Your task to perform on an android device: Open Yahoo.com Image 0: 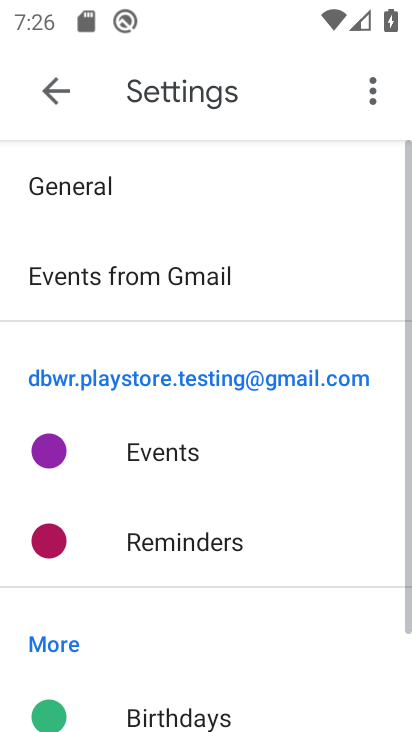
Step 0: click (395, 617)
Your task to perform on an android device: Open Yahoo.com Image 1: 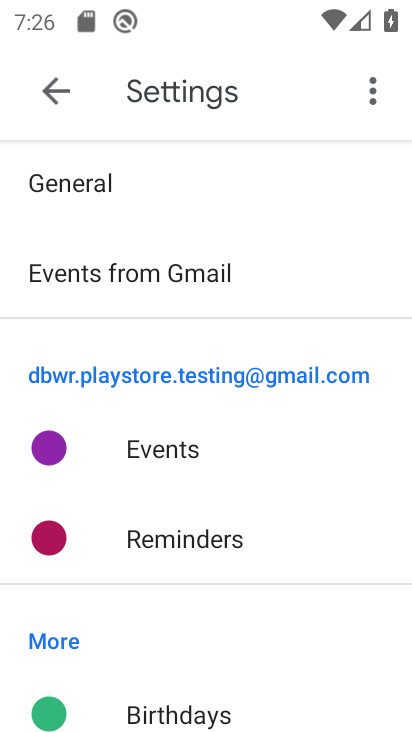
Step 1: press home button
Your task to perform on an android device: Open Yahoo.com Image 2: 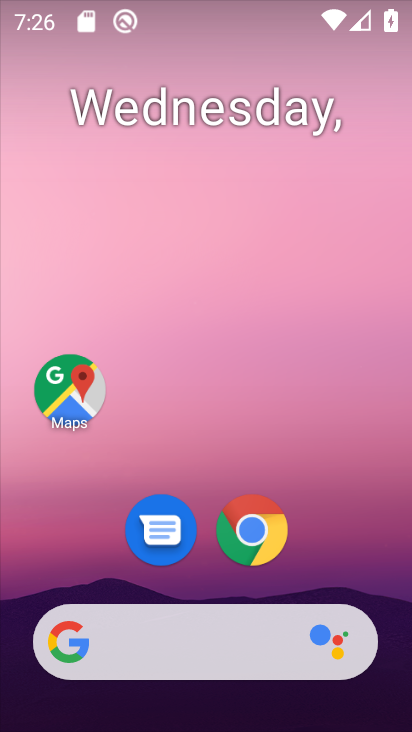
Step 2: drag from (401, 632) to (330, 100)
Your task to perform on an android device: Open Yahoo.com Image 3: 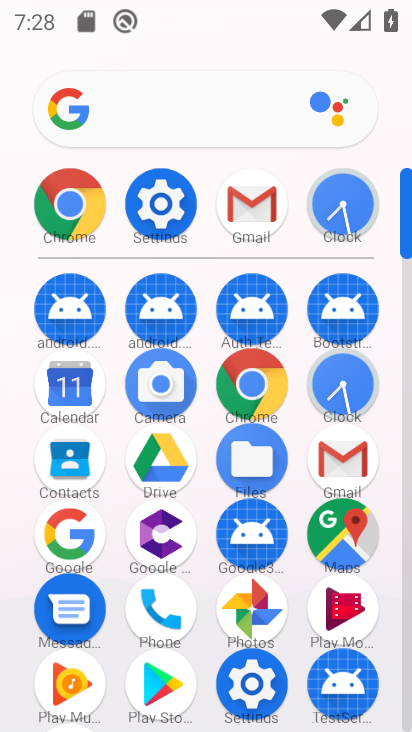
Step 3: click (50, 218)
Your task to perform on an android device: Open Yahoo.com Image 4: 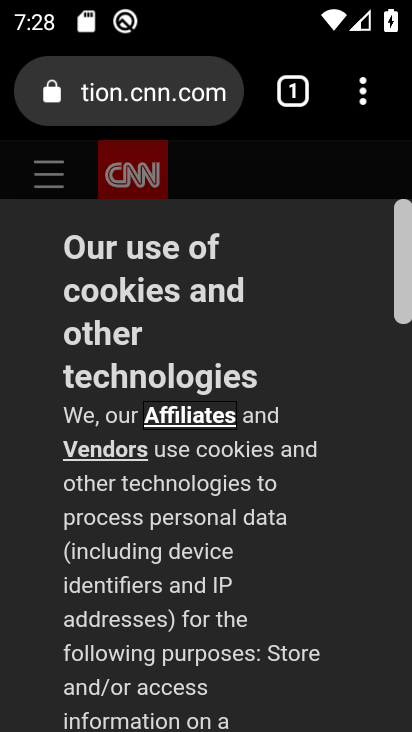
Step 4: press back button
Your task to perform on an android device: Open Yahoo.com Image 5: 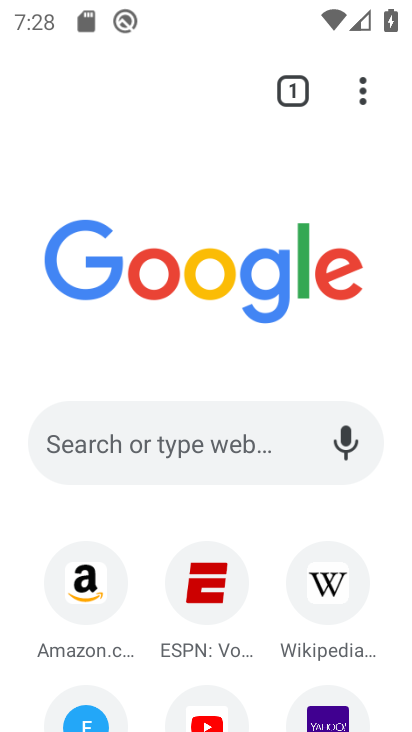
Step 5: click (343, 707)
Your task to perform on an android device: Open Yahoo.com Image 6: 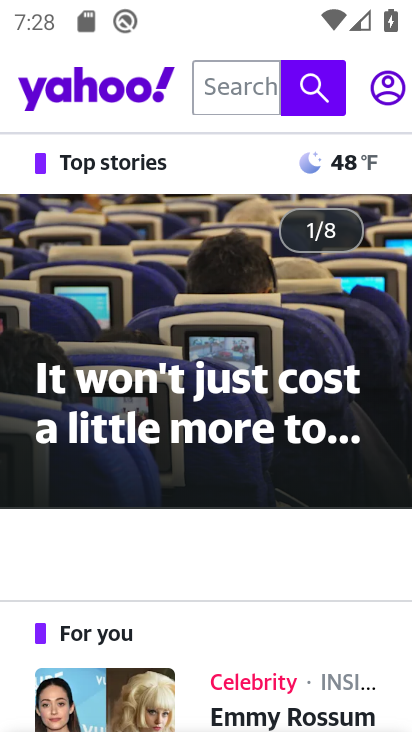
Step 6: task complete